Your task to perform on an android device: open a new tab in the chrome app Image 0: 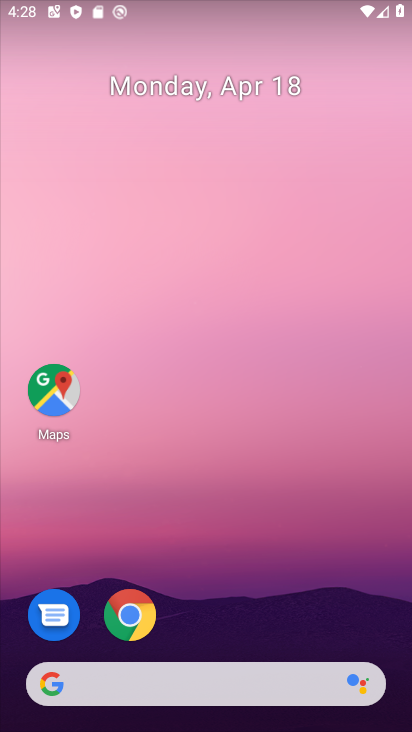
Step 0: click (145, 610)
Your task to perform on an android device: open a new tab in the chrome app Image 1: 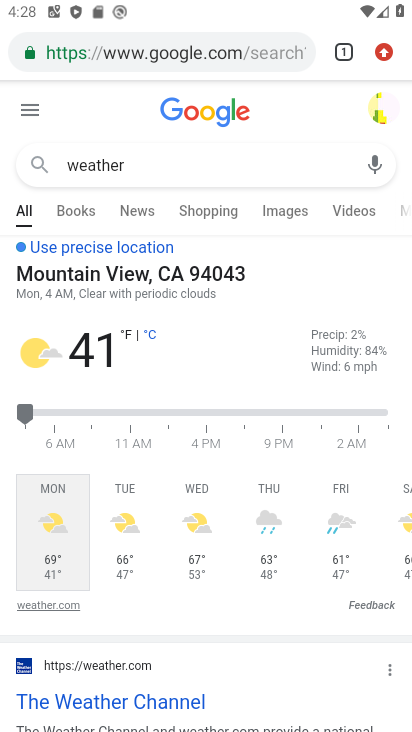
Step 1: click (347, 44)
Your task to perform on an android device: open a new tab in the chrome app Image 2: 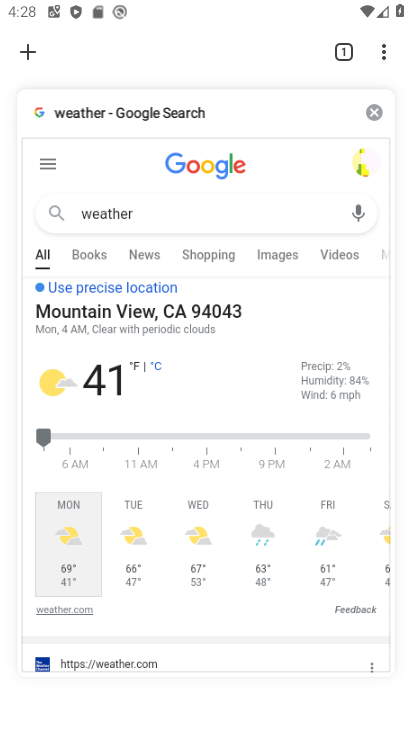
Step 2: click (26, 53)
Your task to perform on an android device: open a new tab in the chrome app Image 3: 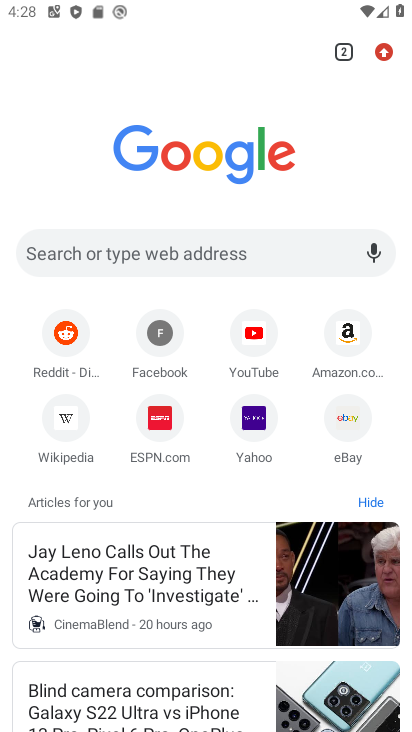
Step 3: task complete